Your task to perform on an android device: Do I have any events today? Image 0: 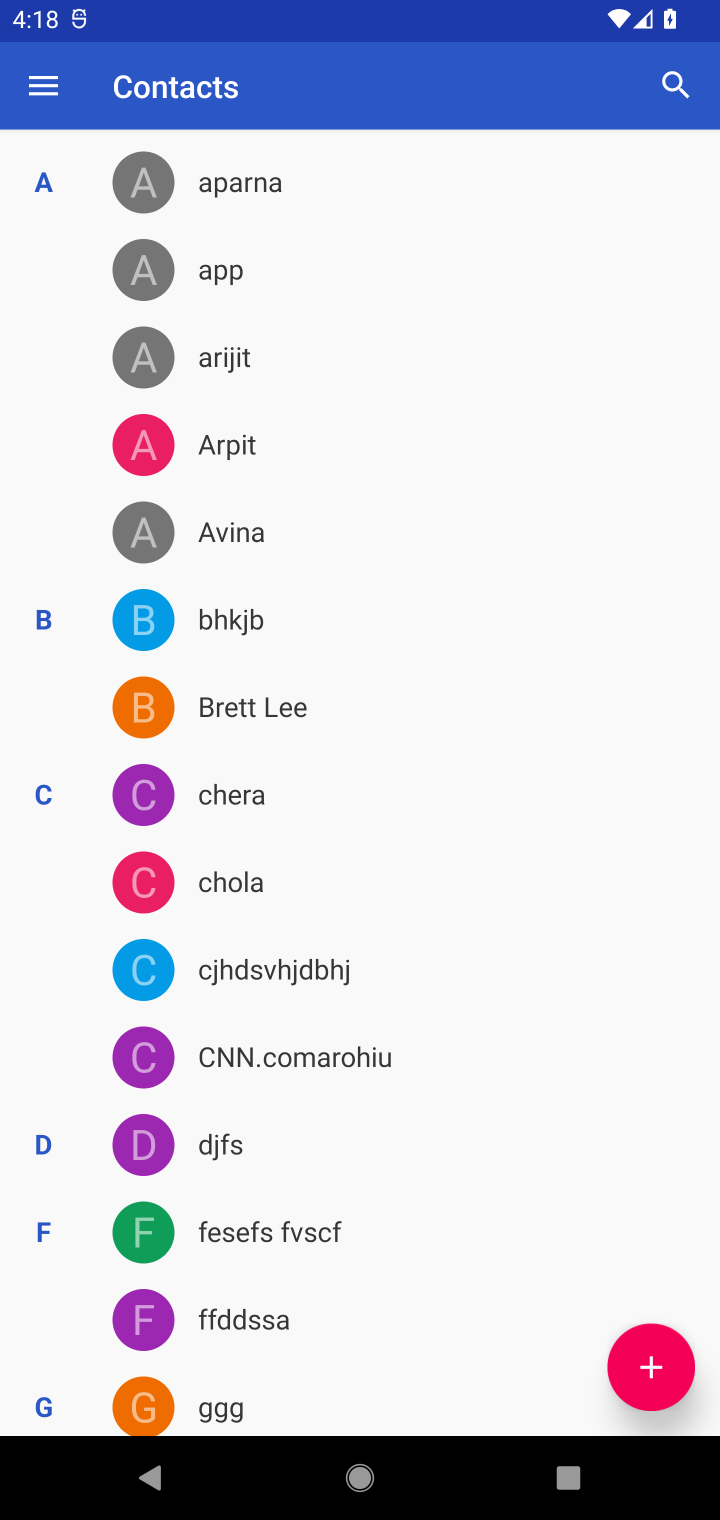
Step 0: press home button
Your task to perform on an android device: Do I have any events today? Image 1: 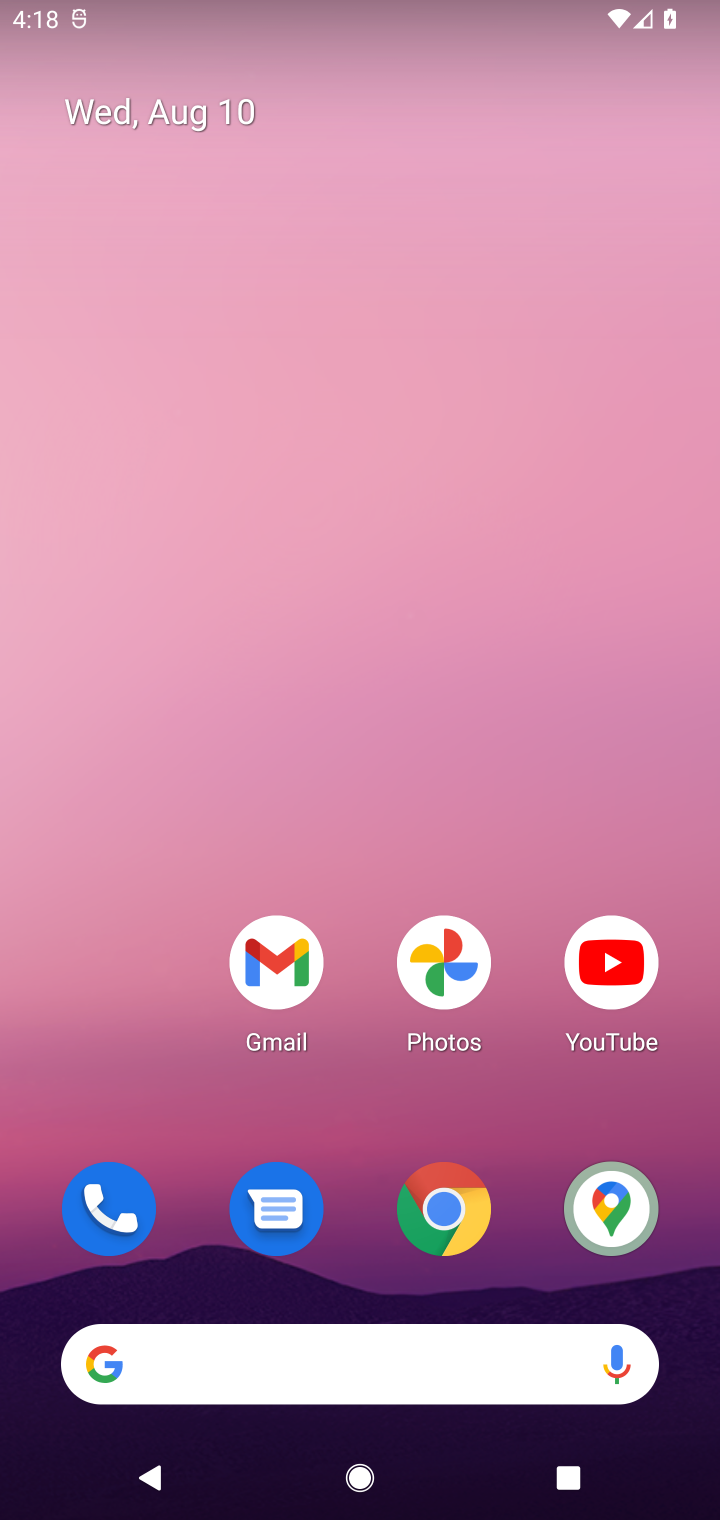
Step 1: click (128, 100)
Your task to perform on an android device: Do I have any events today? Image 2: 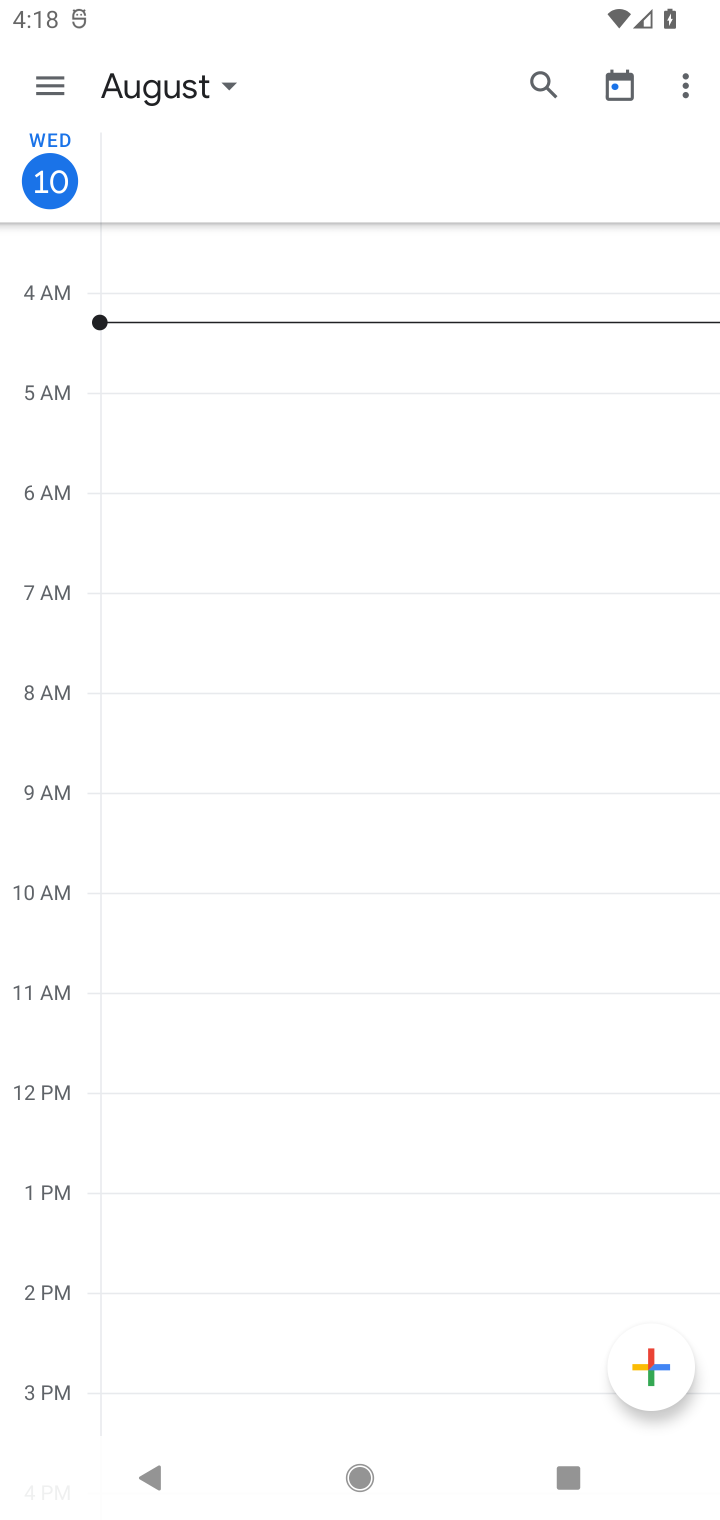
Step 2: task complete